Your task to perform on an android device: Open the web browser Image 0: 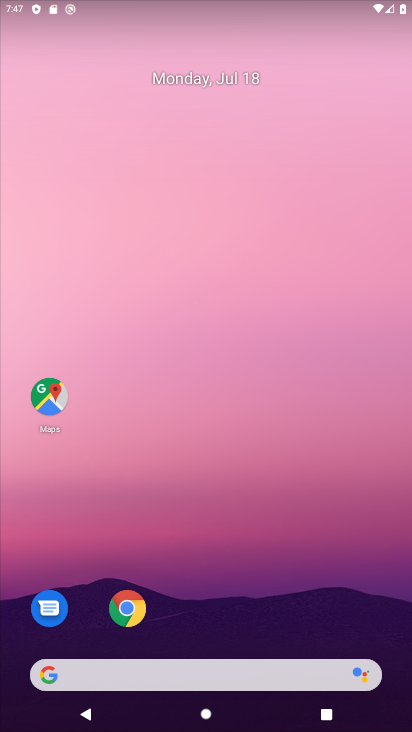
Step 0: drag from (34, 684) to (277, 0)
Your task to perform on an android device: Open the web browser Image 1: 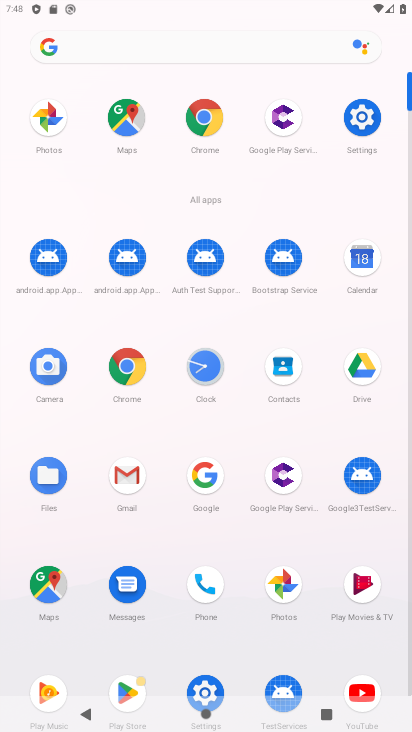
Step 1: task complete